Your task to perform on an android device: turn pop-ups on in chrome Image 0: 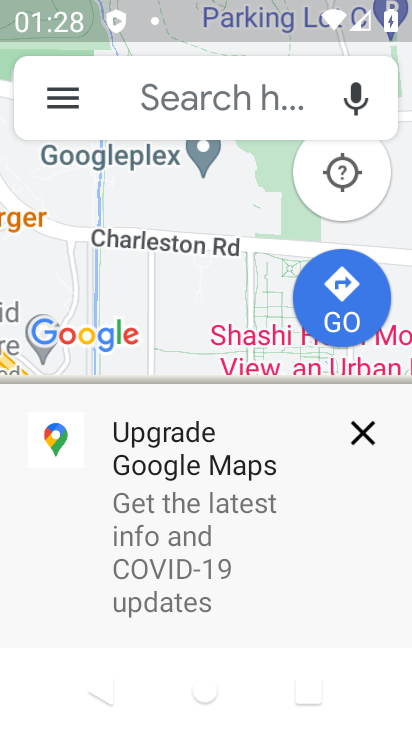
Step 0: drag from (201, 542) to (199, 30)
Your task to perform on an android device: turn pop-ups on in chrome Image 1: 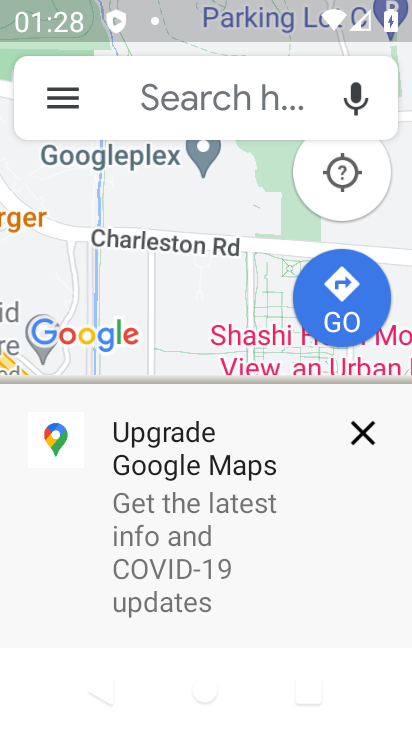
Step 1: press home button
Your task to perform on an android device: turn pop-ups on in chrome Image 2: 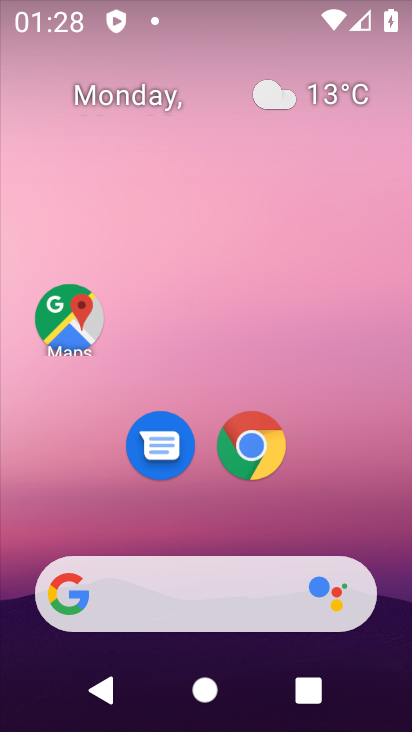
Step 2: click (246, 454)
Your task to perform on an android device: turn pop-ups on in chrome Image 3: 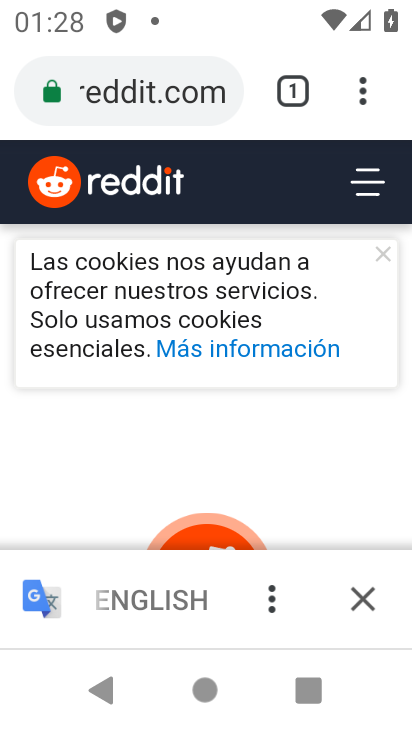
Step 3: click (361, 89)
Your task to perform on an android device: turn pop-ups on in chrome Image 4: 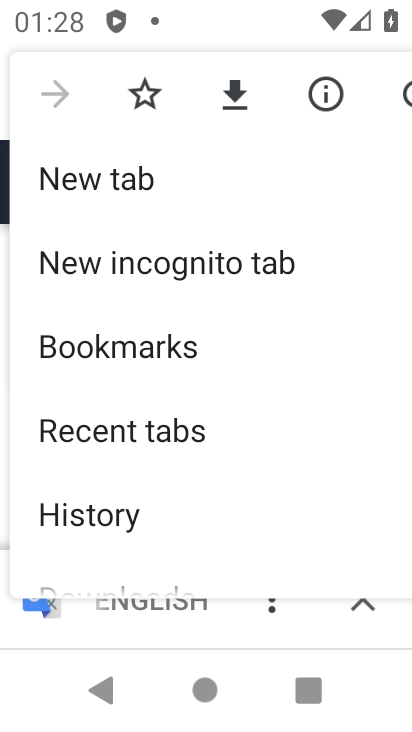
Step 4: drag from (175, 464) to (148, 103)
Your task to perform on an android device: turn pop-ups on in chrome Image 5: 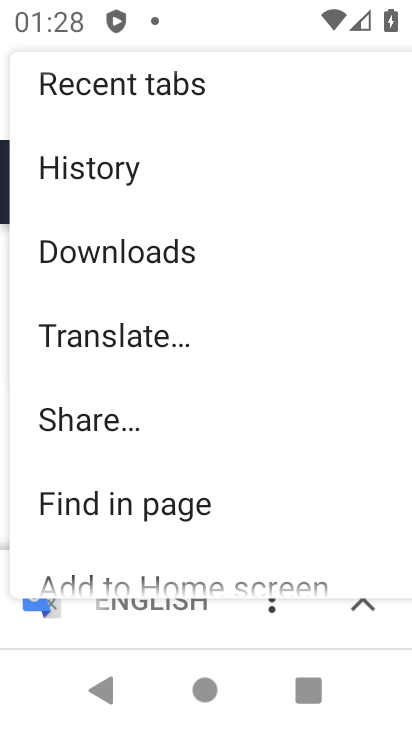
Step 5: drag from (199, 476) to (225, 77)
Your task to perform on an android device: turn pop-ups on in chrome Image 6: 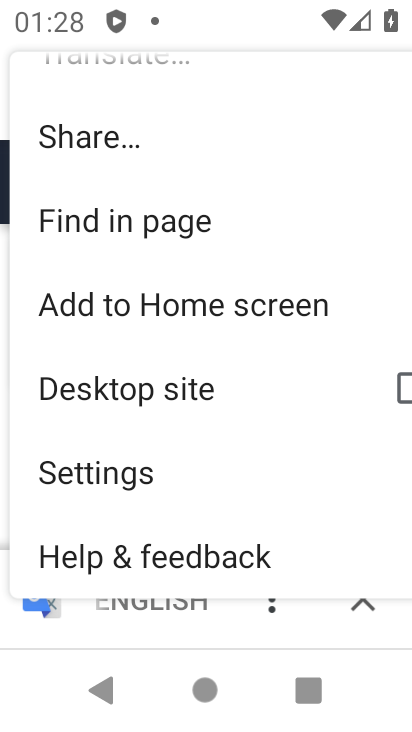
Step 6: click (103, 490)
Your task to perform on an android device: turn pop-ups on in chrome Image 7: 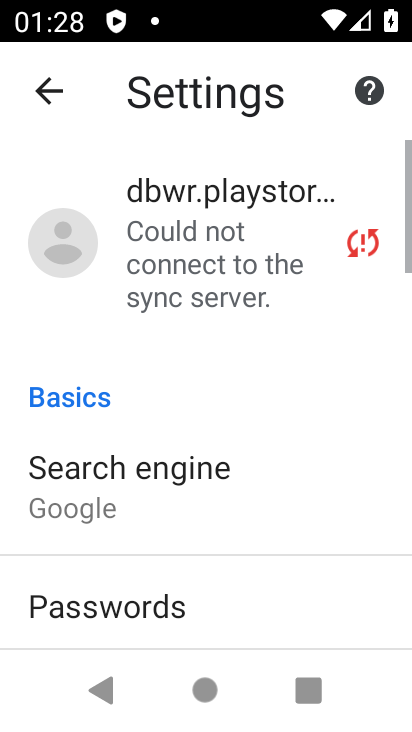
Step 7: drag from (217, 585) to (195, 113)
Your task to perform on an android device: turn pop-ups on in chrome Image 8: 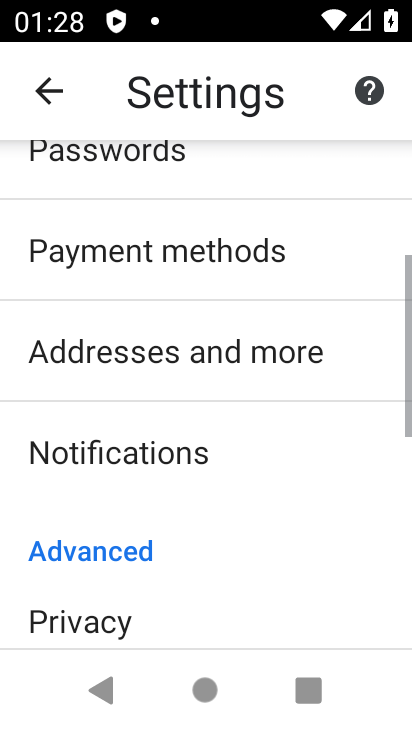
Step 8: drag from (231, 584) to (186, 102)
Your task to perform on an android device: turn pop-ups on in chrome Image 9: 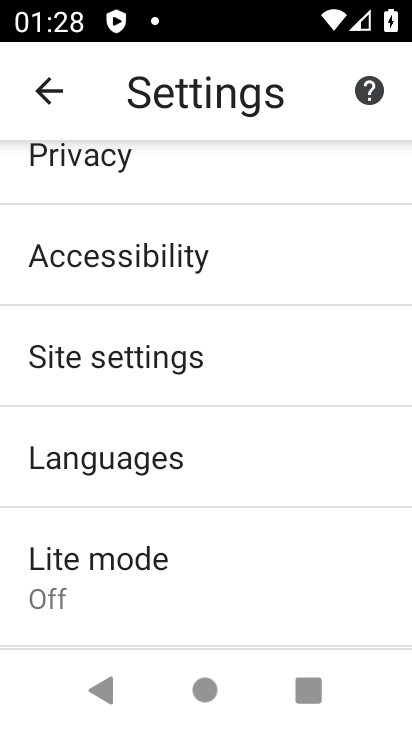
Step 9: click (151, 361)
Your task to perform on an android device: turn pop-ups on in chrome Image 10: 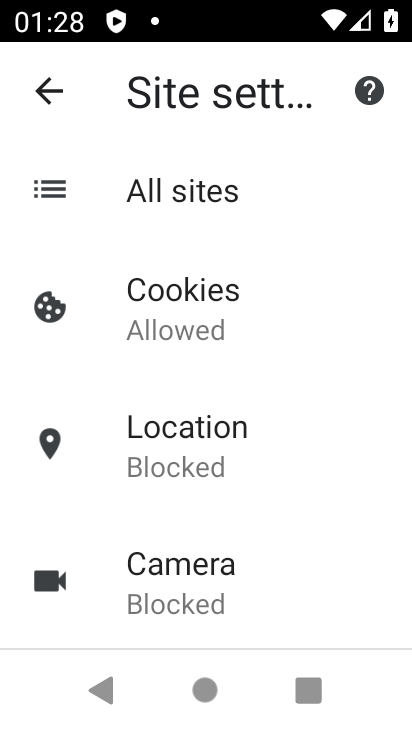
Step 10: drag from (179, 600) to (182, 259)
Your task to perform on an android device: turn pop-ups on in chrome Image 11: 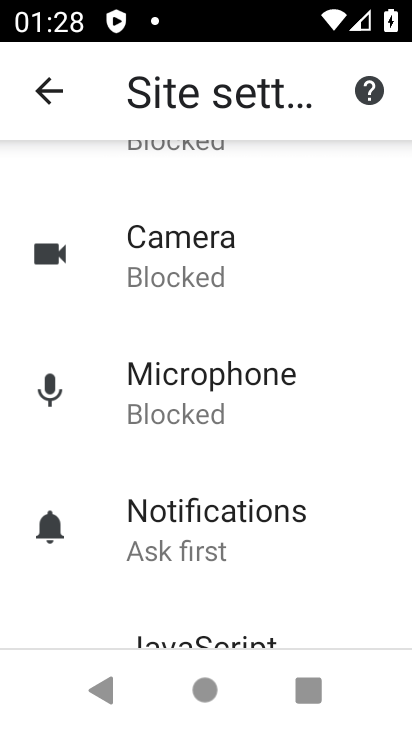
Step 11: drag from (261, 601) to (252, 117)
Your task to perform on an android device: turn pop-ups on in chrome Image 12: 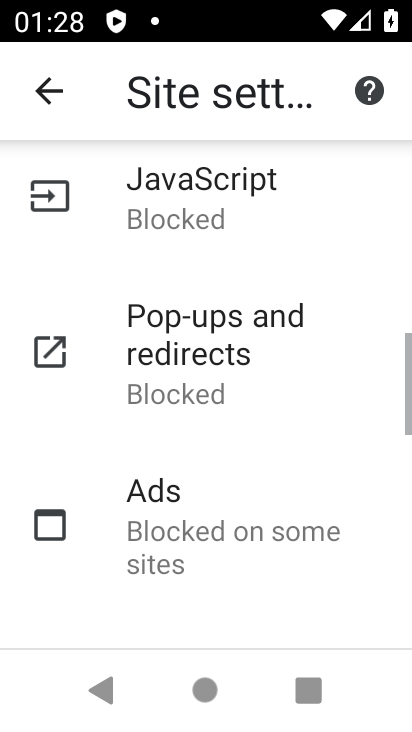
Step 12: click (227, 370)
Your task to perform on an android device: turn pop-ups on in chrome Image 13: 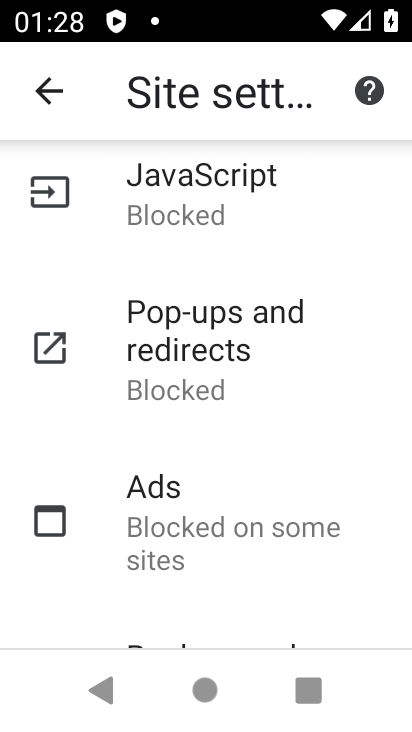
Step 13: click (204, 415)
Your task to perform on an android device: turn pop-ups on in chrome Image 14: 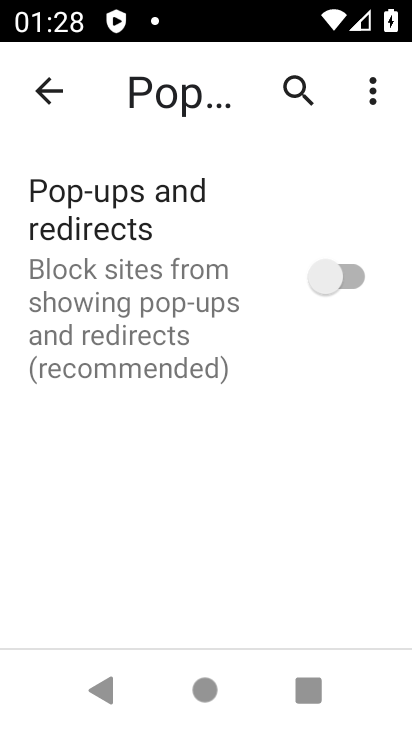
Step 14: click (335, 282)
Your task to perform on an android device: turn pop-ups on in chrome Image 15: 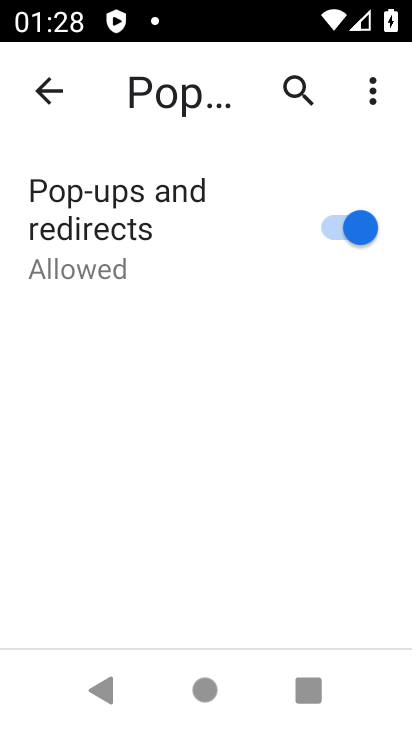
Step 15: task complete